Your task to perform on an android device: Open Chrome and go to settings Image 0: 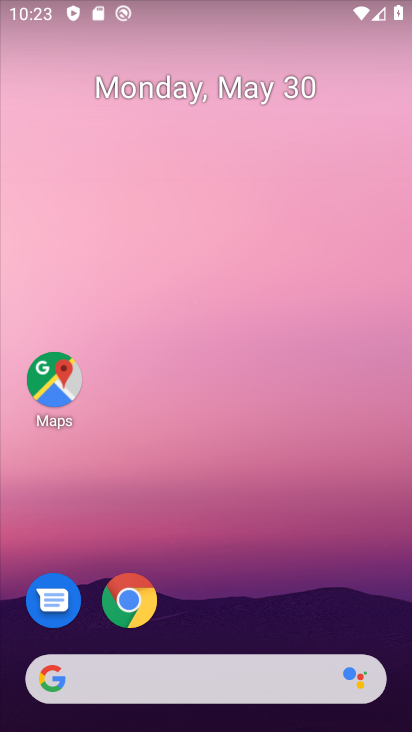
Step 0: drag from (215, 576) to (245, 78)
Your task to perform on an android device: Open Chrome and go to settings Image 1: 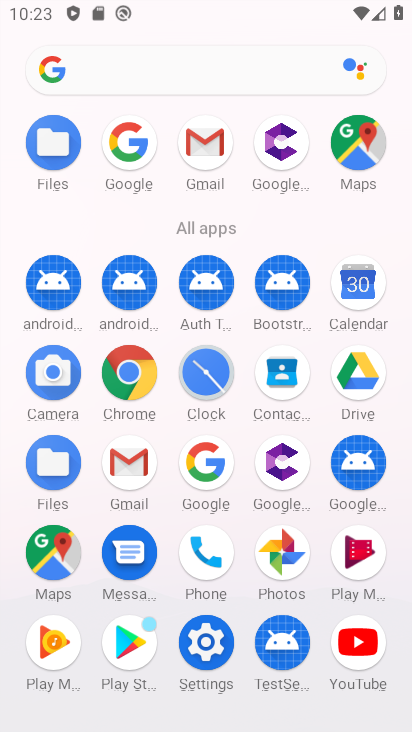
Step 1: click (130, 369)
Your task to perform on an android device: Open Chrome and go to settings Image 2: 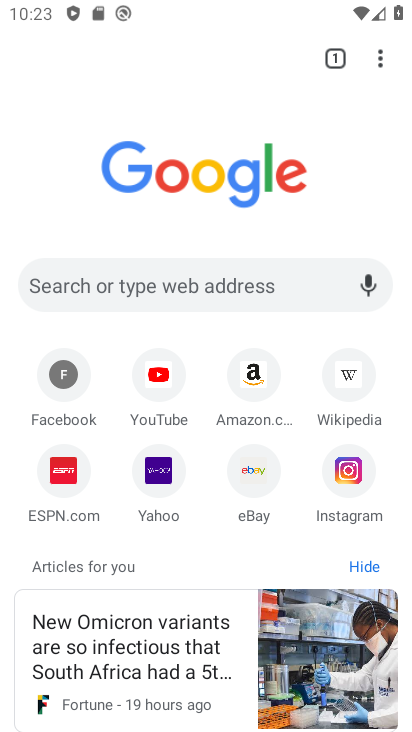
Step 2: task complete